Your task to perform on an android device: open a new tab in the chrome app Image 0: 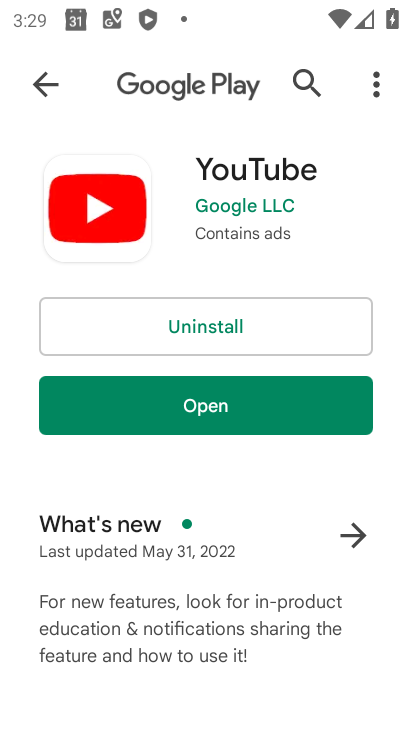
Step 0: press home button
Your task to perform on an android device: open a new tab in the chrome app Image 1: 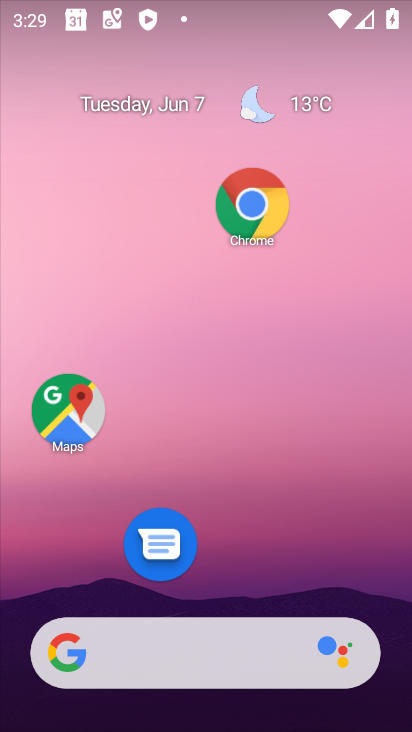
Step 1: click (249, 196)
Your task to perform on an android device: open a new tab in the chrome app Image 2: 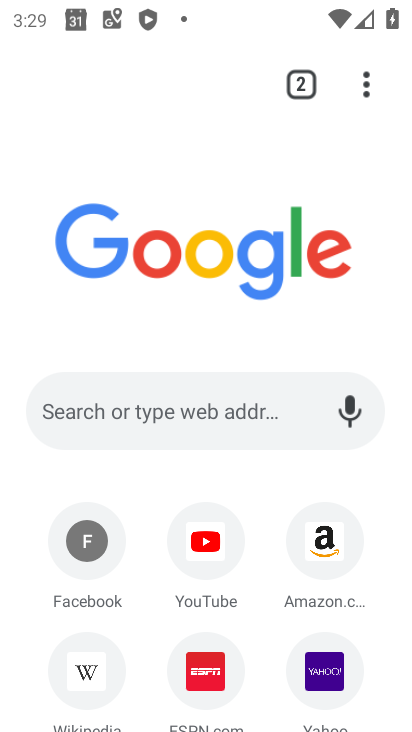
Step 2: click (305, 83)
Your task to perform on an android device: open a new tab in the chrome app Image 3: 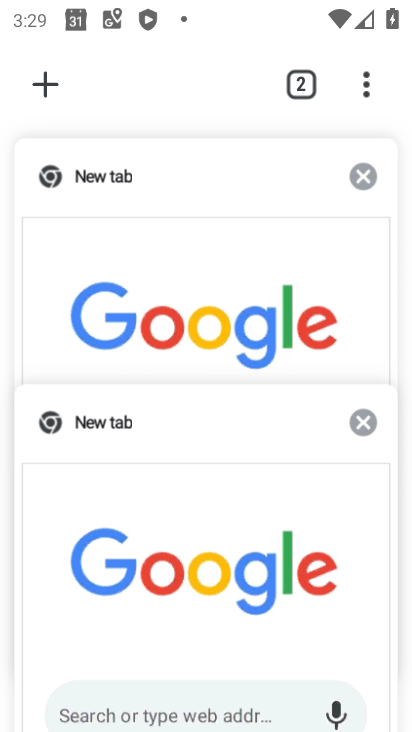
Step 3: click (49, 78)
Your task to perform on an android device: open a new tab in the chrome app Image 4: 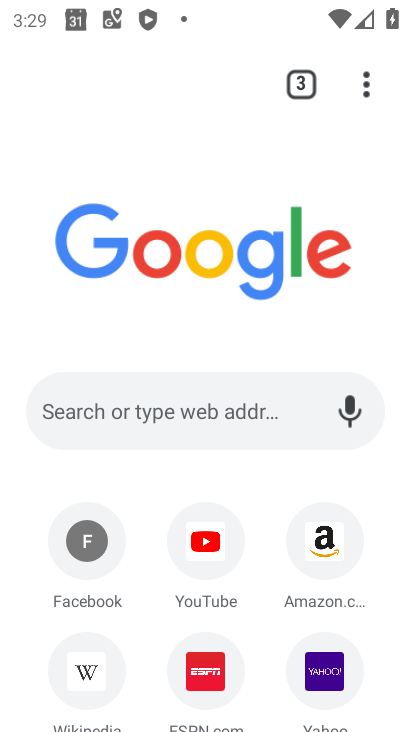
Step 4: task complete